Your task to perform on an android device: turn on the 12-hour format for clock Image 0: 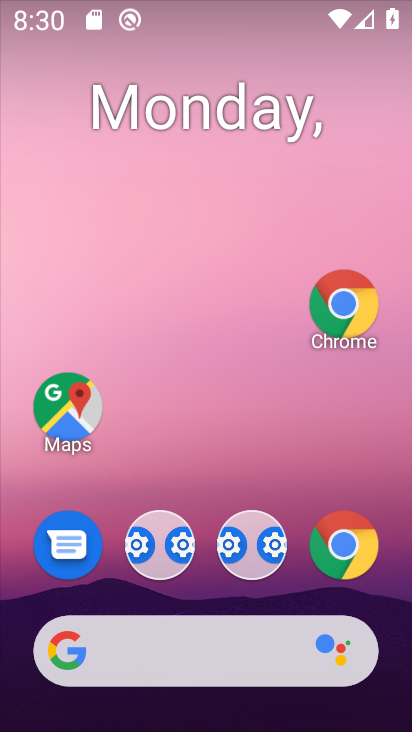
Step 0: click (183, 284)
Your task to perform on an android device: turn on the 12-hour format for clock Image 1: 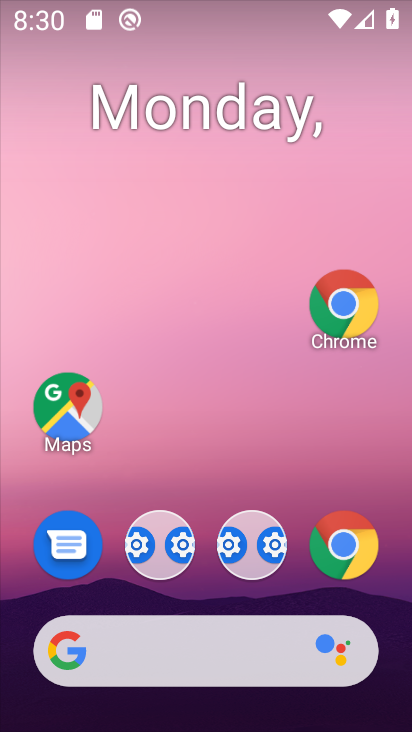
Step 1: drag from (317, 464) to (211, 2)
Your task to perform on an android device: turn on the 12-hour format for clock Image 2: 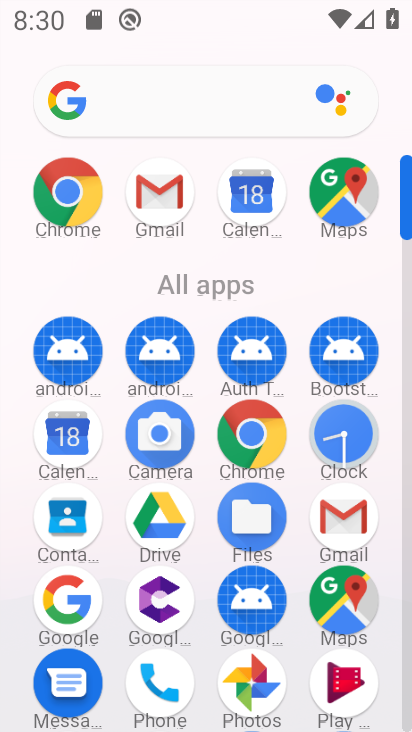
Step 2: click (330, 442)
Your task to perform on an android device: turn on the 12-hour format for clock Image 3: 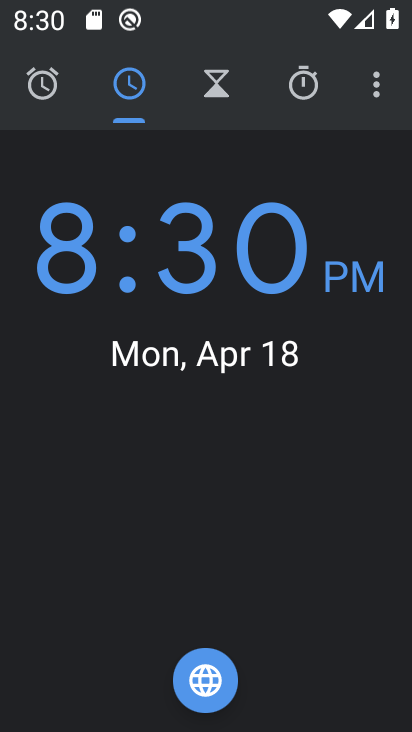
Step 3: click (373, 88)
Your task to perform on an android device: turn on the 12-hour format for clock Image 4: 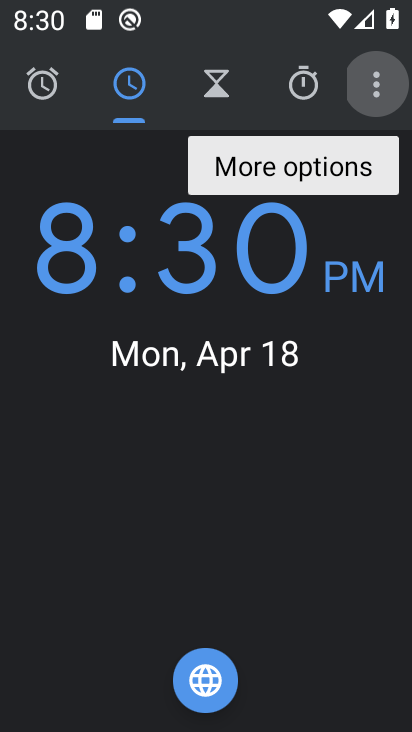
Step 4: click (373, 78)
Your task to perform on an android device: turn on the 12-hour format for clock Image 5: 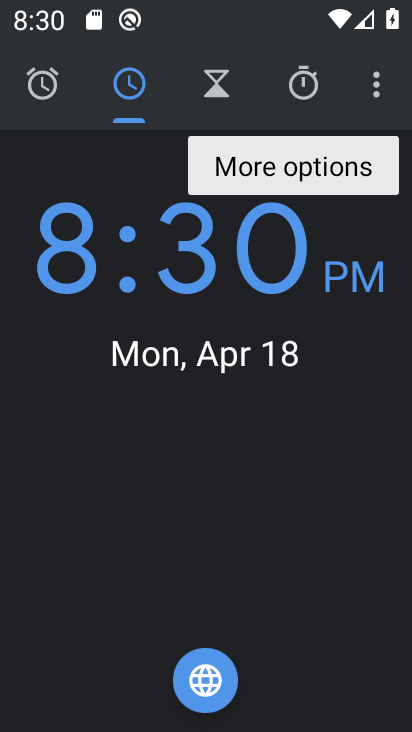
Step 5: click (348, 158)
Your task to perform on an android device: turn on the 12-hour format for clock Image 6: 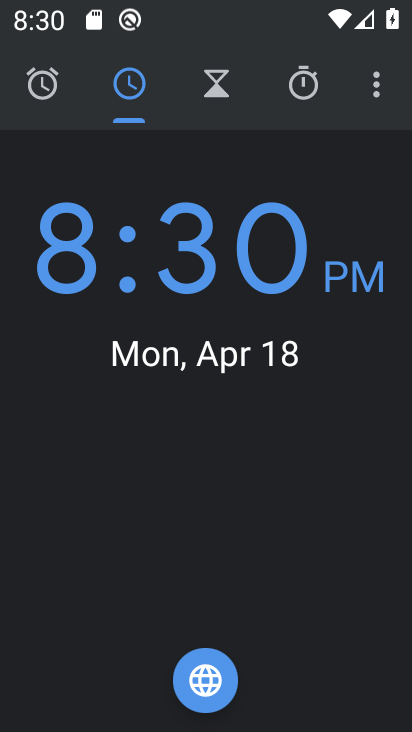
Step 6: click (379, 84)
Your task to perform on an android device: turn on the 12-hour format for clock Image 7: 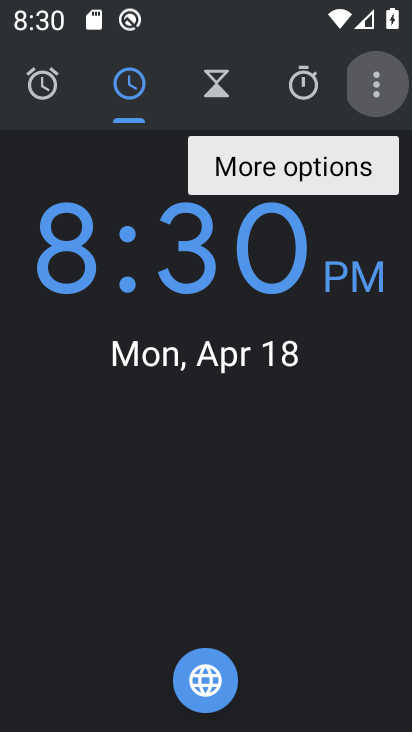
Step 7: click (378, 89)
Your task to perform on an android device: turn on the 12-hour format for clock Image 8: 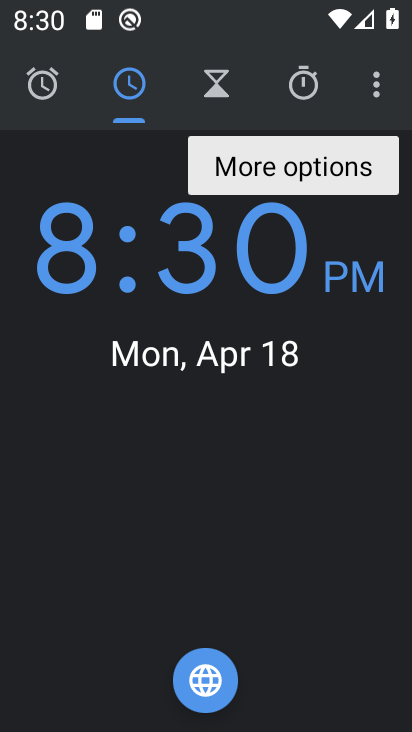
Step 8: click (351, 165)
Your task to perform on an android device: turn on the 12-hour format for clock Image 9: 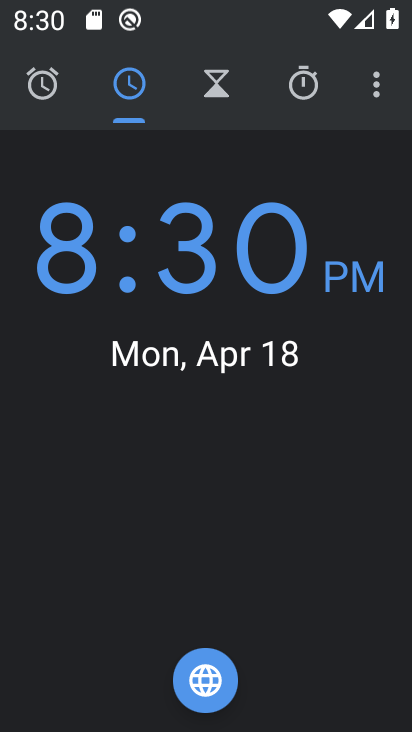
Step 9: click (377, 86)
Your task to perform on an android device: turn on the 12-hour format for clock Image 10: 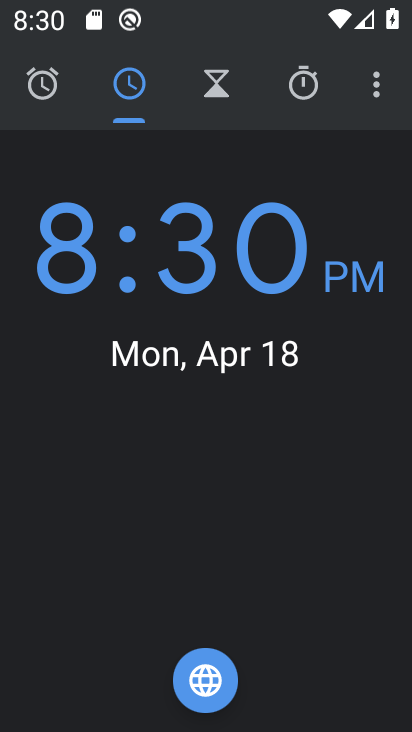
Step 10: click (376, 89)
Your task to perform on an android device: turn on the 12-hour format for clock Image 11: 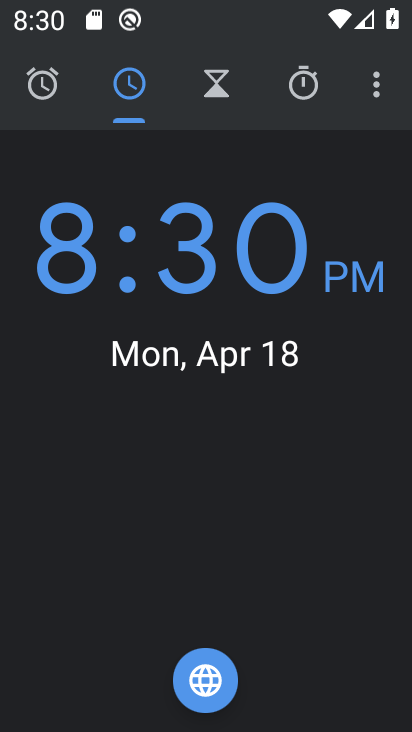
Step 11: click (284, 171)
Your task to perform on an android device: turn on the 12-hour format for clock Image 12: 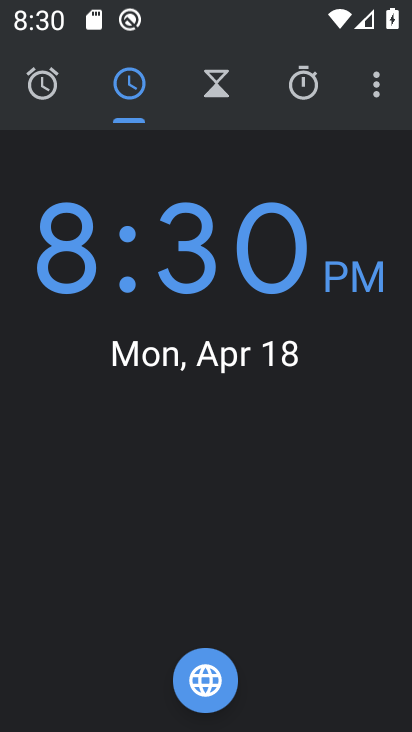
Step 12: click (386, 69)
Your task to perform on an android device: turn on the 12-hour format for clock Image 13: 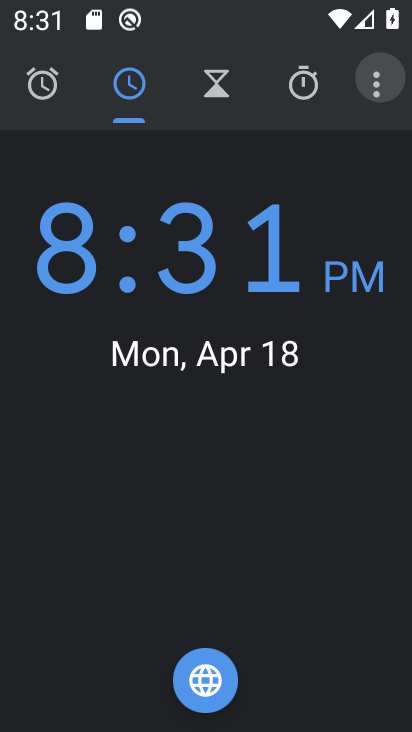
Step 13: click (381, 79)
Your task to perform on an android device: turn on the 12-hour format for clock Image 14: 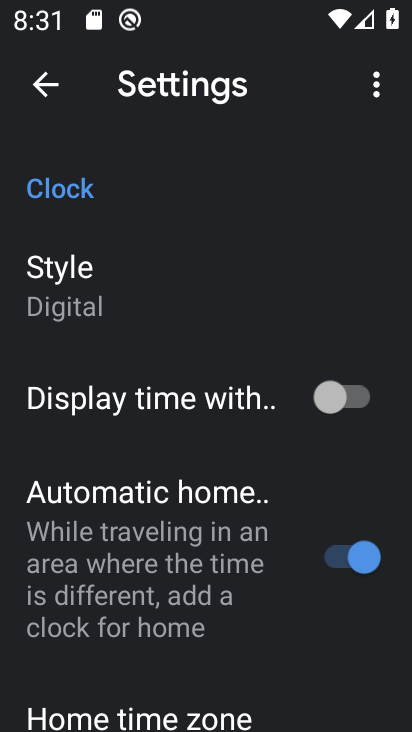
Step 14: drag from (274, 587) to (266, 259)
Your task to perform on an android device: turn on the 12-hour format for clock Image 15: 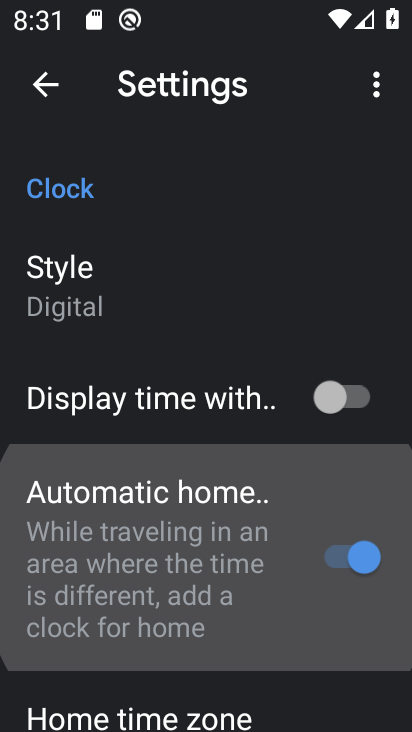
Step 15: drag from (242, 548) to (194, 96)
Your task to perform on an android device: turn on the 12-hour format for clock Image 16: 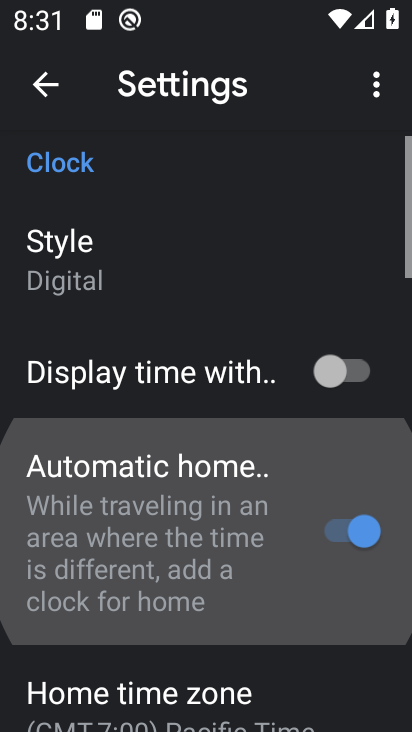
Step 16: drag from (249, 534) to (284, 223)
Your task to perform on an android device: turn on the 12-hour format for clock Image 17: 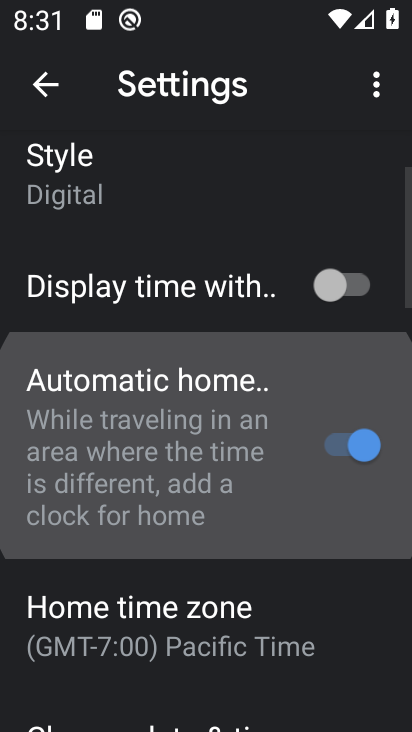
Step 17: drag from (278, 577) to (225, 120)
Your task to perform on an android device: turn on the 12-hour format for clock Image 18: 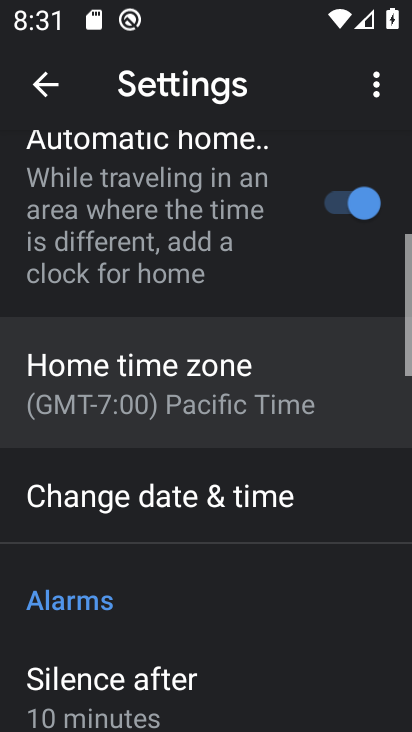
Step 18: drag from (222, 363) to (222, 77)
Your task to perform on an android device: turn on the 12-hour format for clock Image 19: 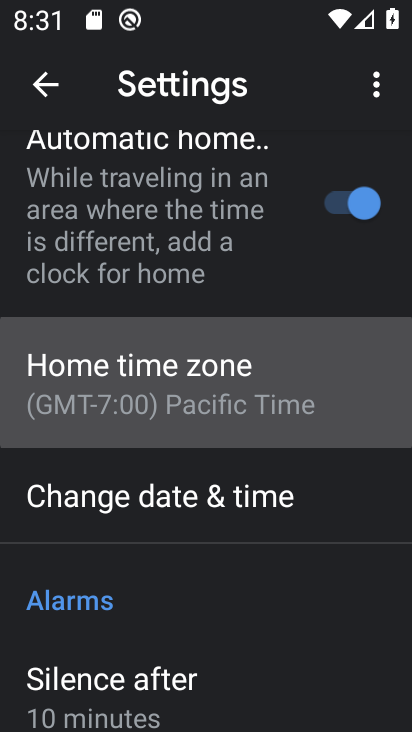
Step 19: drag from (279, 525) to (267, 149)
Your task to perform on an android device: turn on the 12-hour format for clock Image 20: 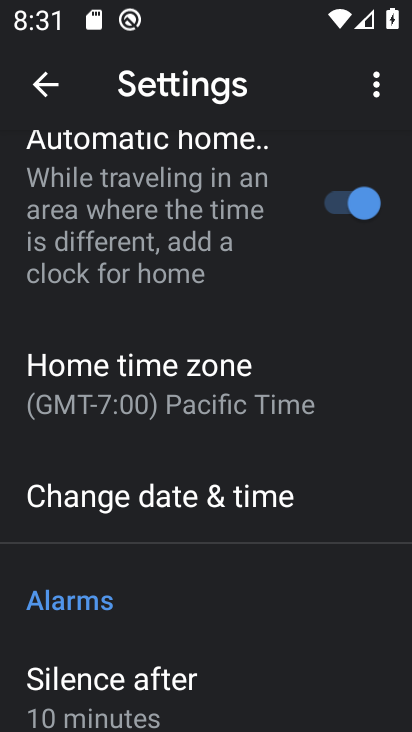
Step 20: click (246, 498)
Your task to perform on an android device: turn on the 12-hour format for clock Image 21: 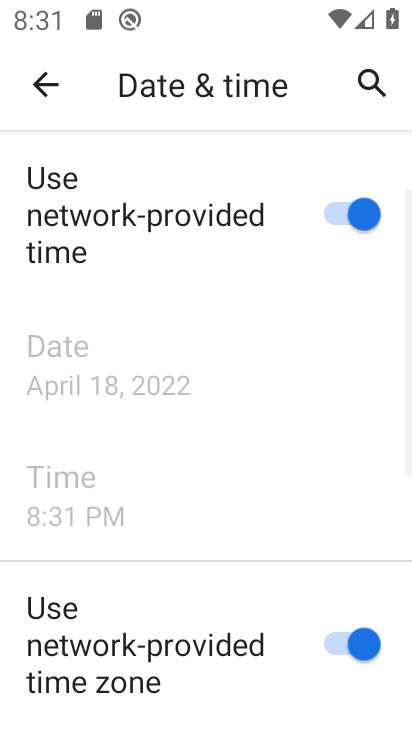
Step 21: task complete